Your task to perform on an android device: Open notification settings Image 0: 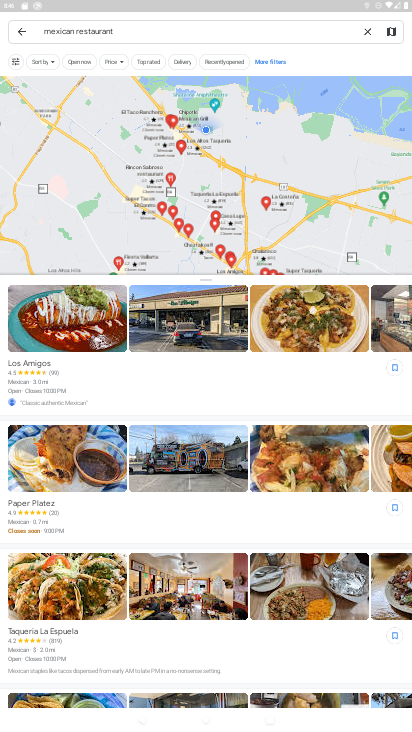
Step 0: press home button
Your task to perform on an android device: Open notification settings Image 1: 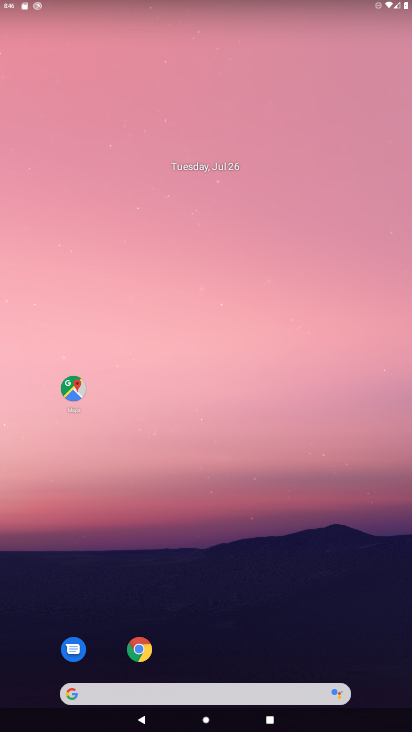
Step 1: drag from (203, 669) to (260, 4)
Your task to perform on an android device: Open notification settings Image 2: 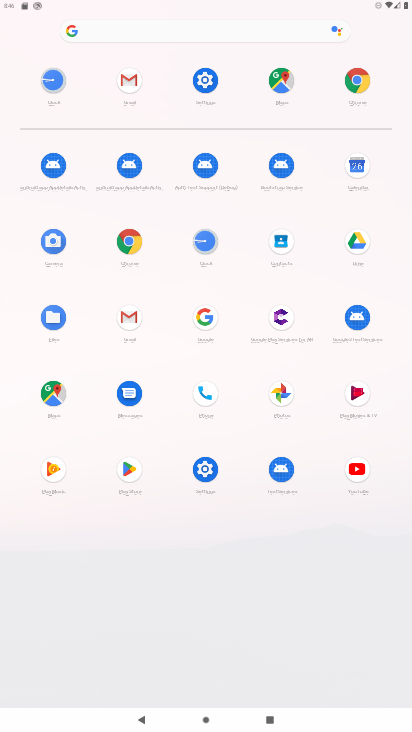
Step 2: click (198, 82)
Your task to perform on an android device: Open notification settings Image 3: 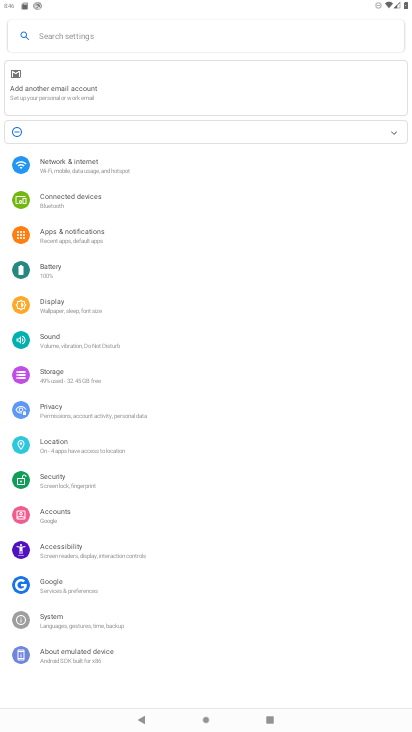
Step 3: click (118, 225)
Your task to perform on an android device: Open notification settings Image 4: 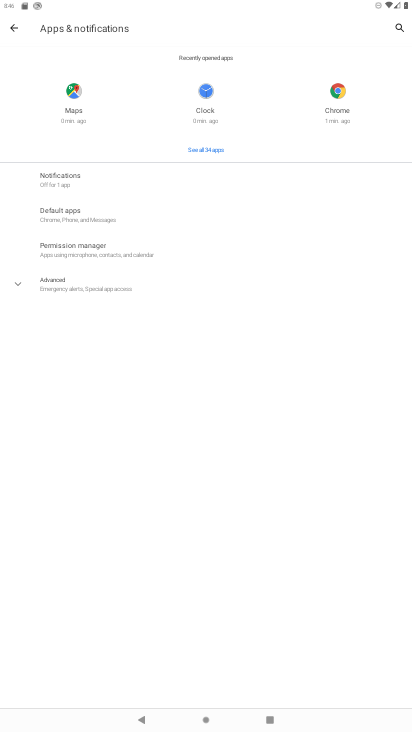
Step 4: task complete